Your task to perform on an android device: toggle wifi Image 0: 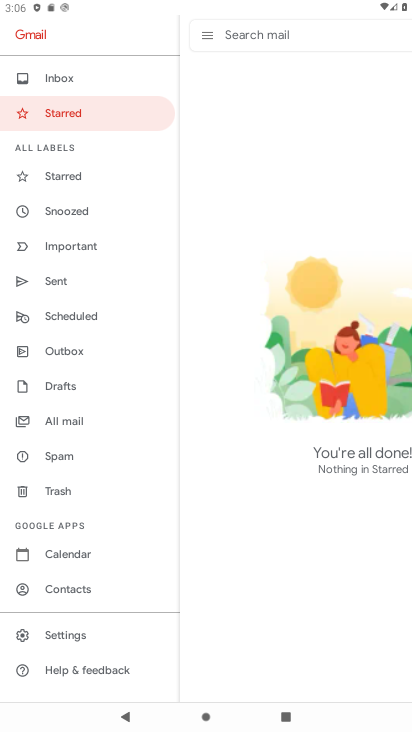
Step 0: press home button
Your task to perform on an android device: toggle wifi Image 1: 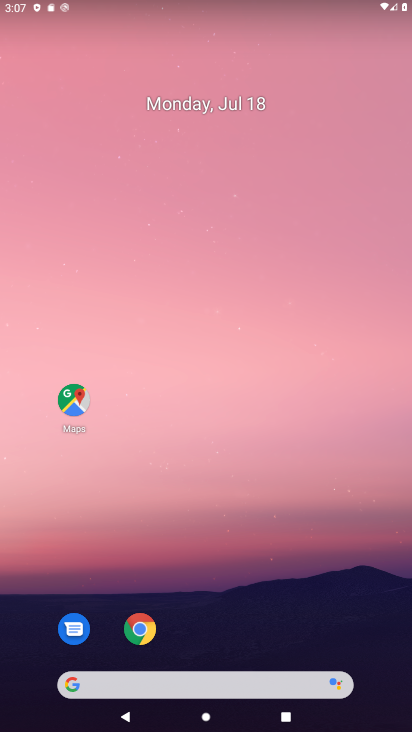
Step 1: drag from (217, 640) to (227, 119)
Your task to perform on an android device: toggle wifi Image 2: 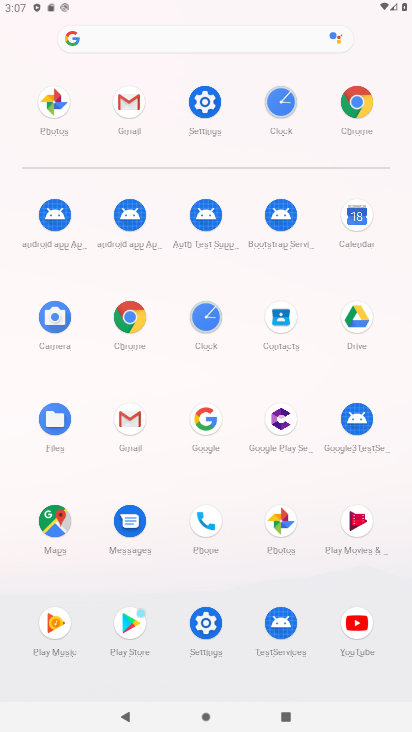
Step 2: click (204, 109)
Your task to perform on an android device: toggle wifi Image 3: 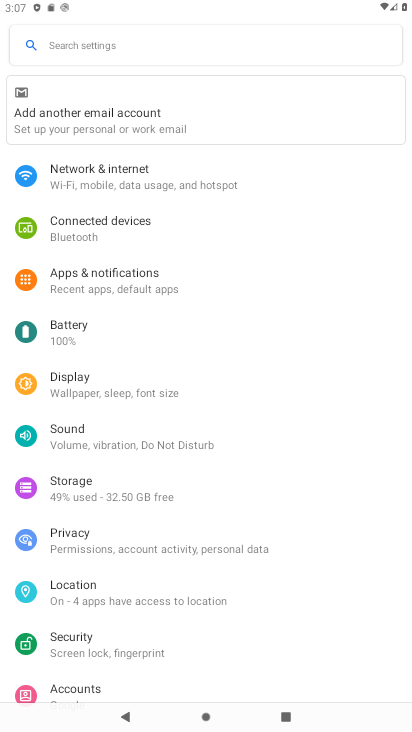
Step 3: click (110, 177)
Your task to perform on an android device: toggle wifi Image 4: 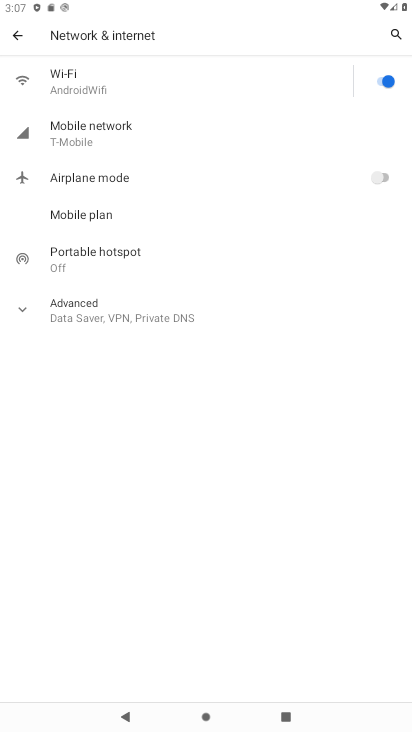
Step 4: click (366, 84)
Your task to perform on an android device: toggle wifi Image 5: 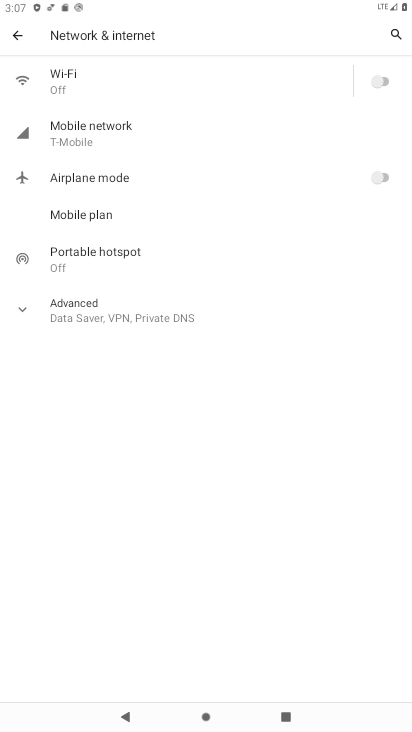
Step 5: task complete